Your task to perform on an android device: create a new album in the google photos Image 0: 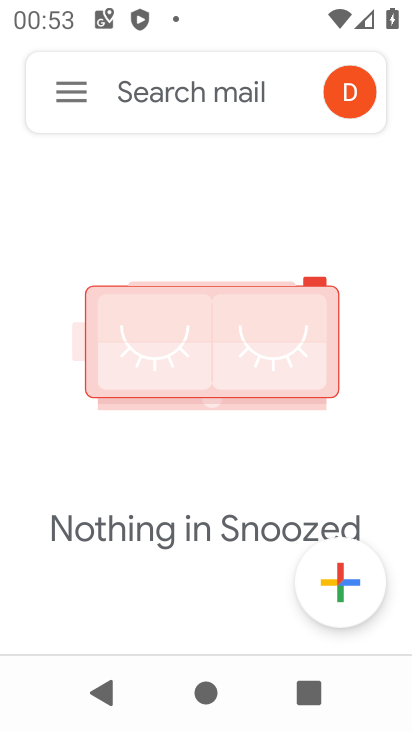
Step 0: press home button
Your task to perform on an android device: create a new album in the google photos Image 1: 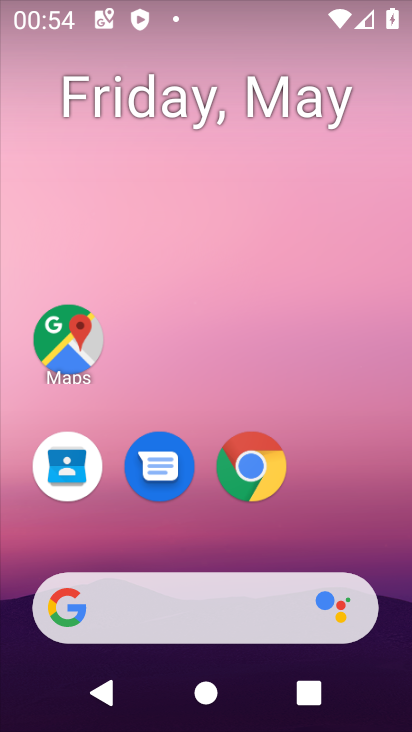
Step 1: drag from (229, 551) to (163, 160)
Your task to perform on an android device: create a new album in the google photos Image 2: 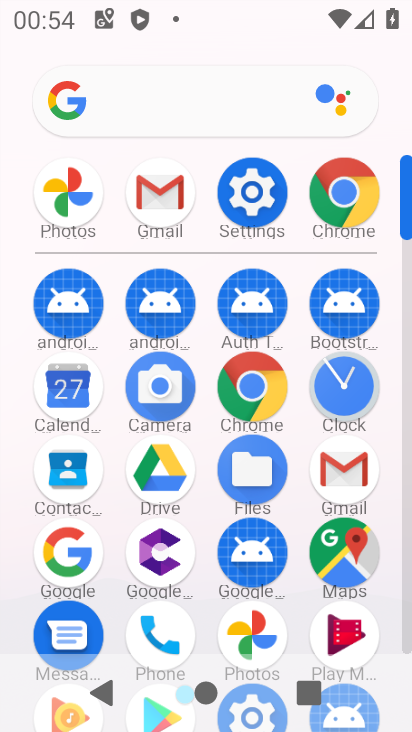
Step 2: click (75, 188)
Your task to perform on an android device: create a new album in the google photos Image 3: 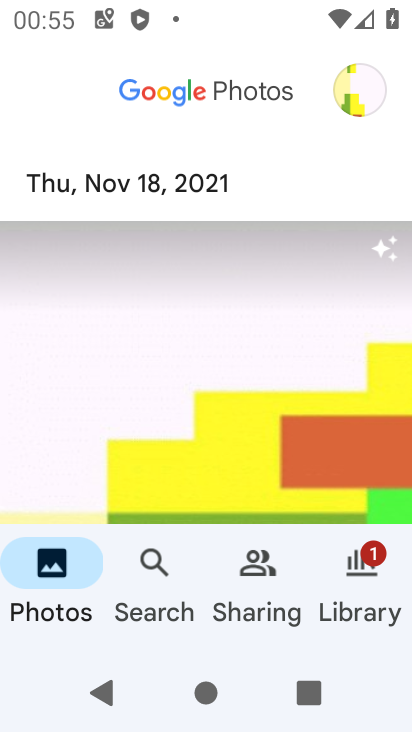
Step 3: drag from (272, 617) to (335, 369)
Your task to perform on an android device: create a new album in the google photos Image 4: 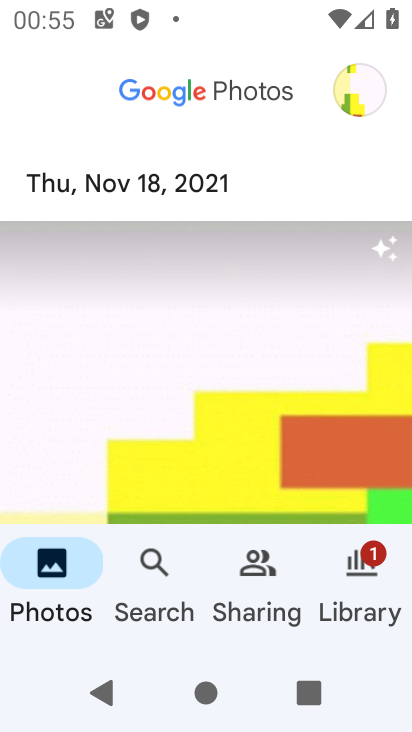
Step 4: click (353, 577)
Your task to perform on an android device: create a new album in the google photos Image 5: 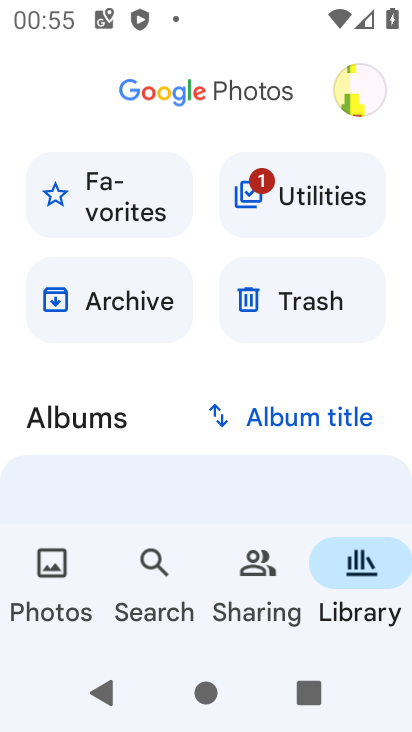
Step 5: click (296, 415)
Your task to perform on an android device: create a new album in the google photos Image 6: 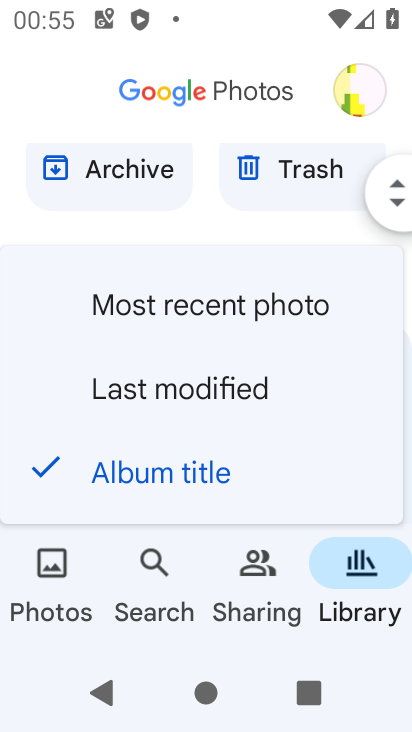
Step 6: click (147, 475)
Your task to perform on an android device: create a new album in the google photos Image 7: 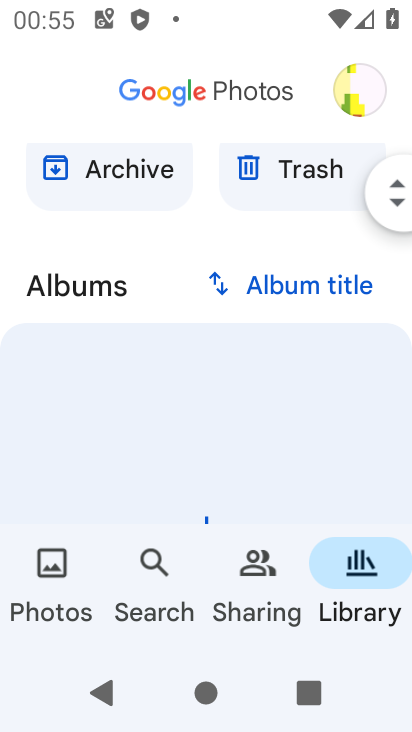
Step 7: drag from (267, 494) to (279, 305)
Your task to perform on an android device: create a new album in the google photos Image 8: 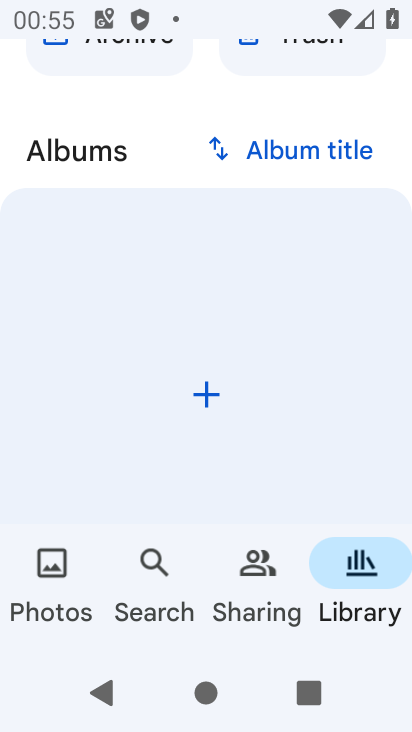
Step 8: click (202, 405)
Your task to perform on an android device: create a new album in the google photos Image 9: 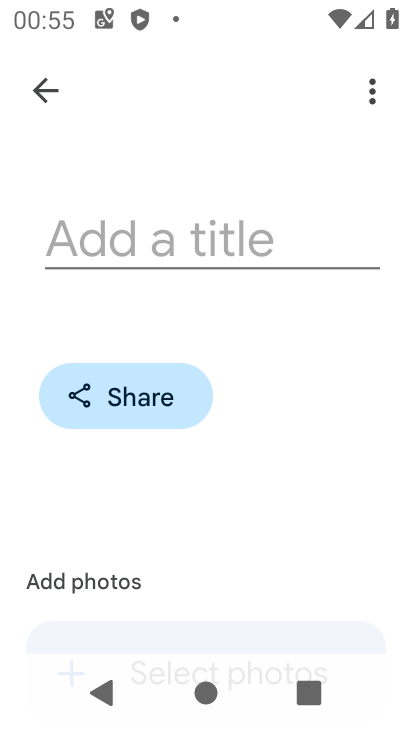
Step 9: click (205, 246)
Your task to perform on an android device: create a new album in the google photos Image 10: 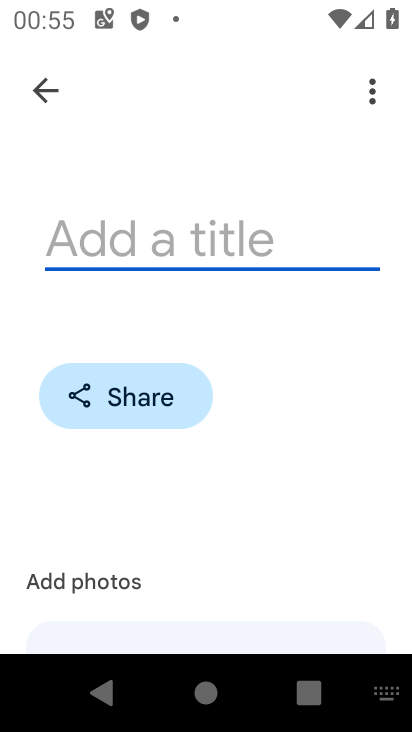
Step 10: type "Shashank"
Your task to perform on an android device: create a new album in the google photos Image 11: 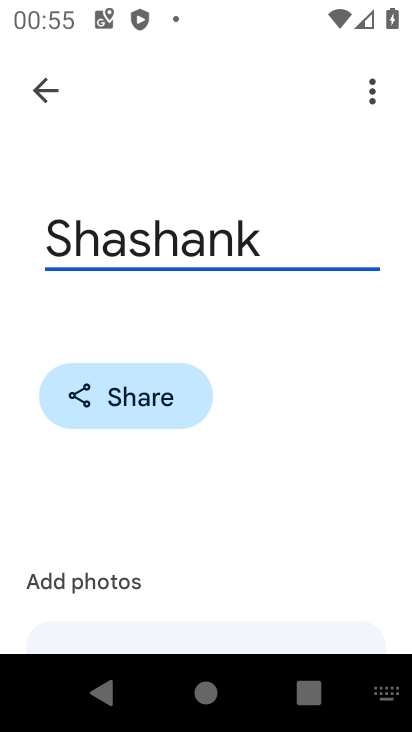
Step 11: drag from (189, 530) to (257, 190)
Your task to perform on an android device: create a new album in the google photos Image 12: 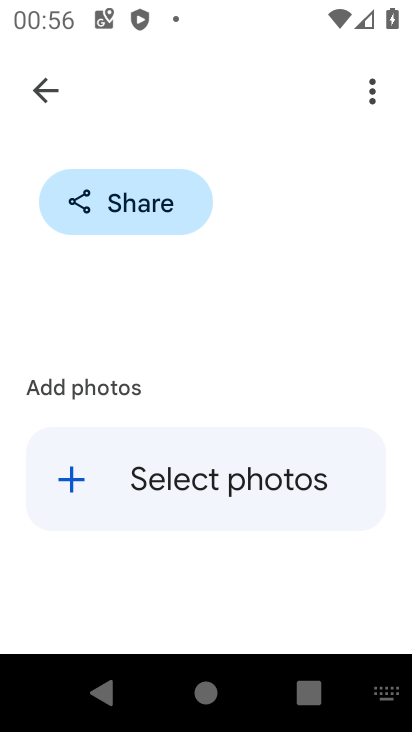
Step 12: click (186, 501)
Your task to perform on an android device: create a new album in the google photos Image 13: 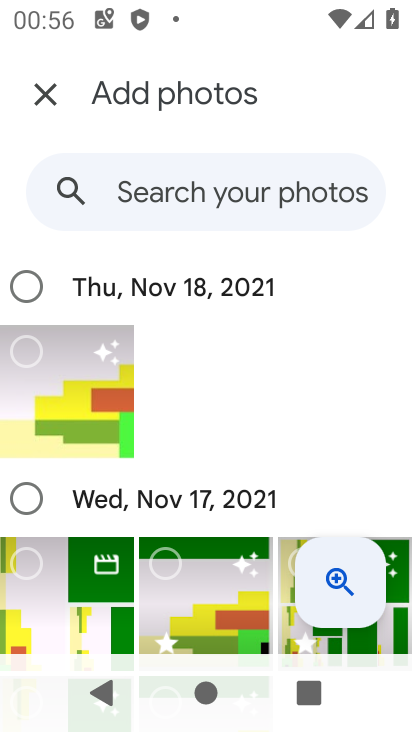
Step 13: click (31, 284)
Your task to perform on an android device: create a new album in the google photos Image 14: 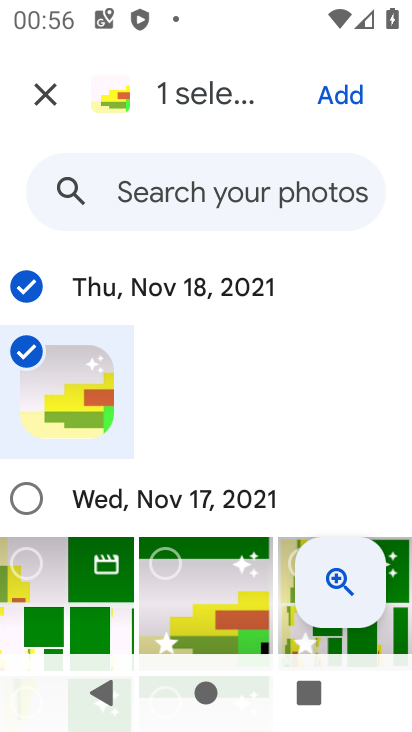
Step 14: click (343, 105)
Your task to perform on an android device: create a new album in the google photos Image 15: 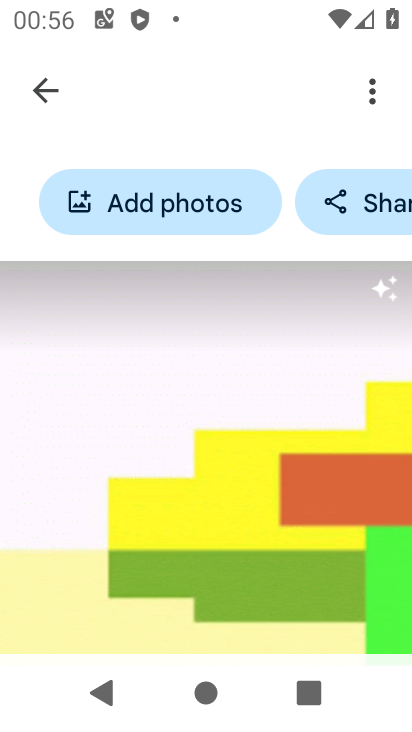
Step 15: task complete